Your task to perform on an android device: open app "AliExpress" (install if not already installed) and go to login screen Image 0: 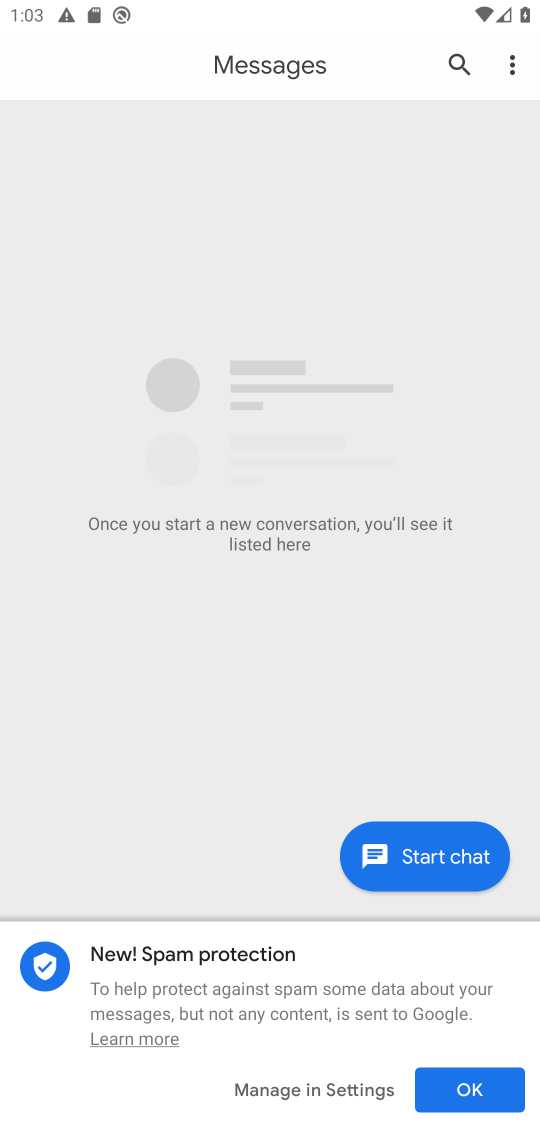
Step 0: press home button
Your task to perform on an android device: open app "AliExpress" (install if not already installed) and go to login screen Image 1: 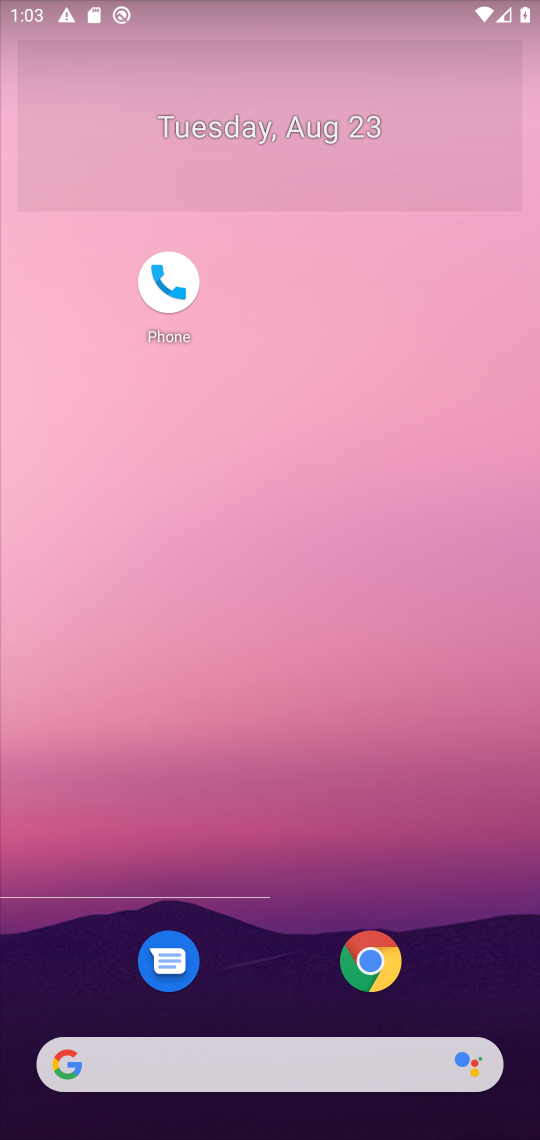
Step 1: drag from (262, 996) to (321, 5)
Your task to perform on an android device: open app "AliExpress" (install if not already installed) and go to login screen Image 2: 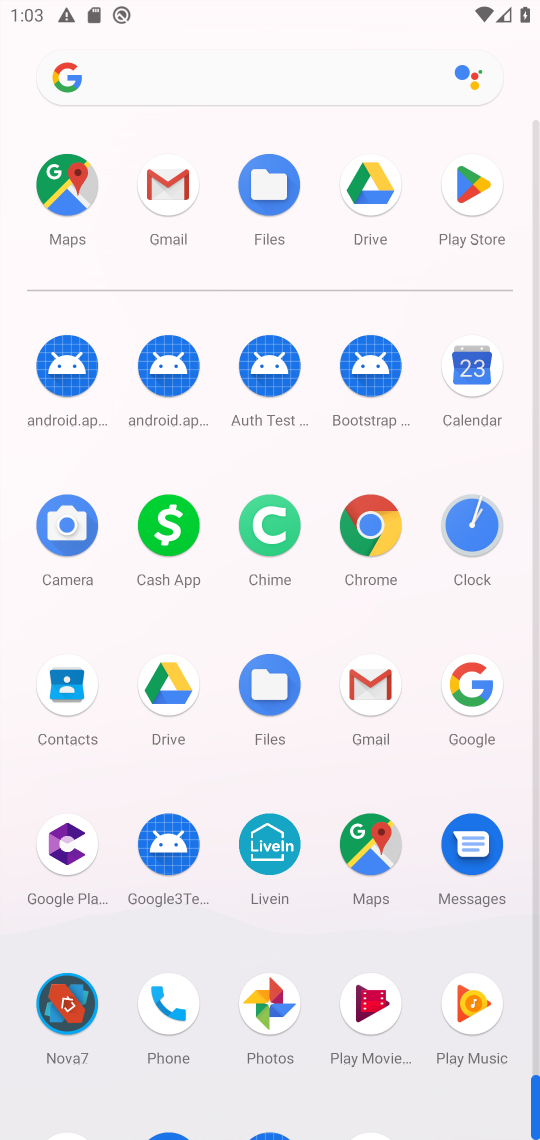
Step 2: click (455, 203)
Your task to perform on an android device: open app "AliExpress" (install if not already installed) and go to login screen Image 3: 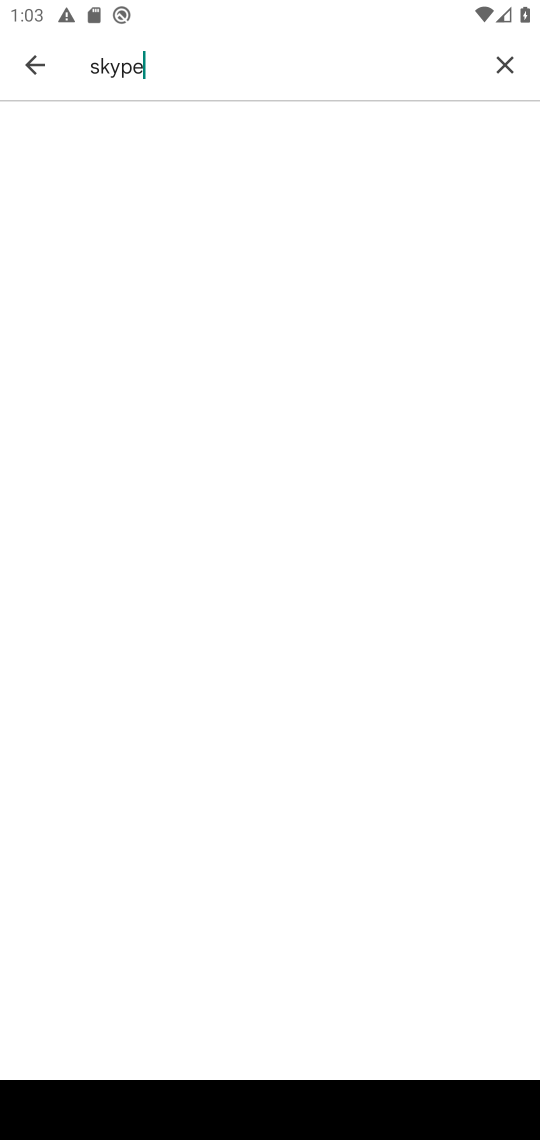
Step 3: click (509, 79)
Your task to perform on an android device: open app "AliExpress" (install if not already installed) and go to login screen Image 4: 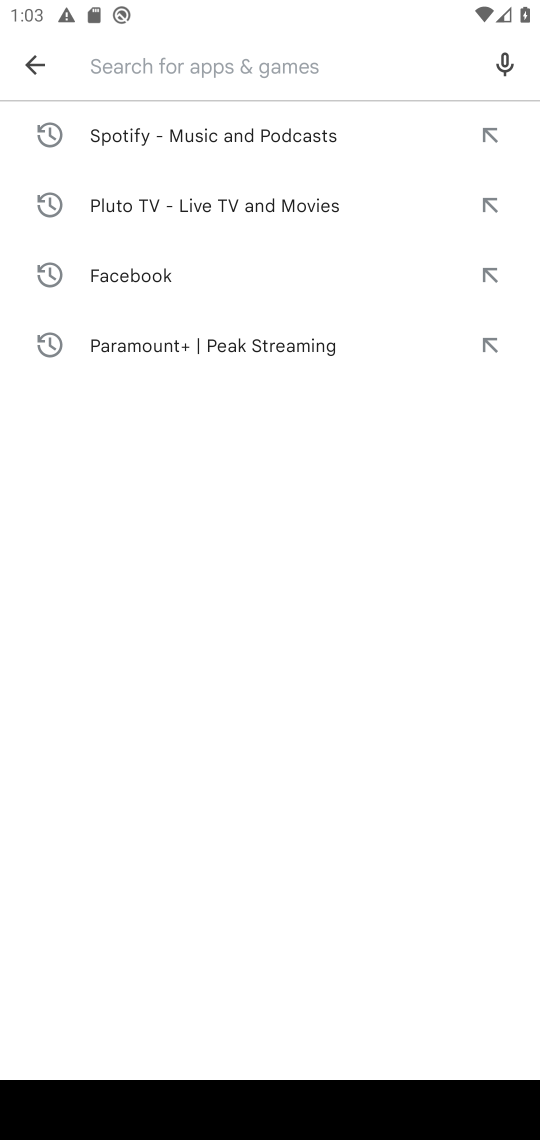
Step 4: type "aliexpress"
Your task to perform on an android device: open app "AliExpress" (install if not already installed) and go to login screen Image 5: 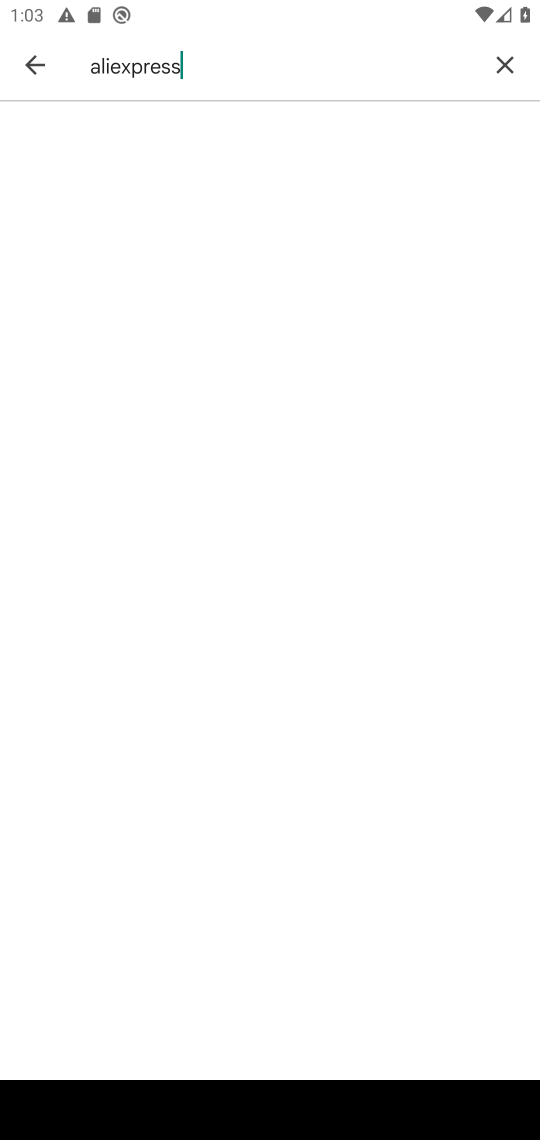
Step 5: task complete